Your task to perform on an android device: empty trash in google photos Image 0: 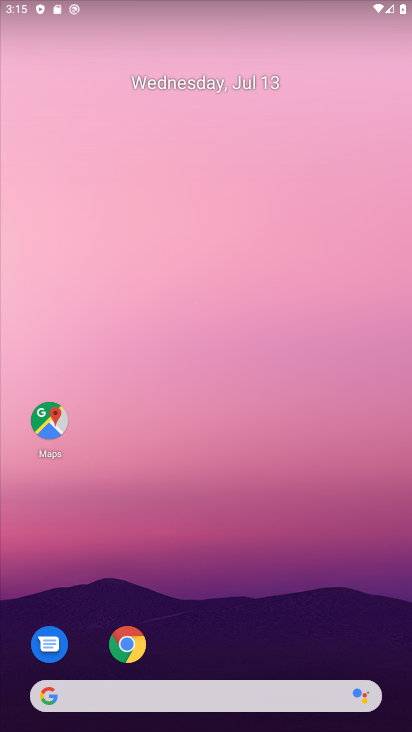
Step 0: drag from (219, 657) to (262, 0)
Your task to perform on an android device: empty trash in google photos Image 1: 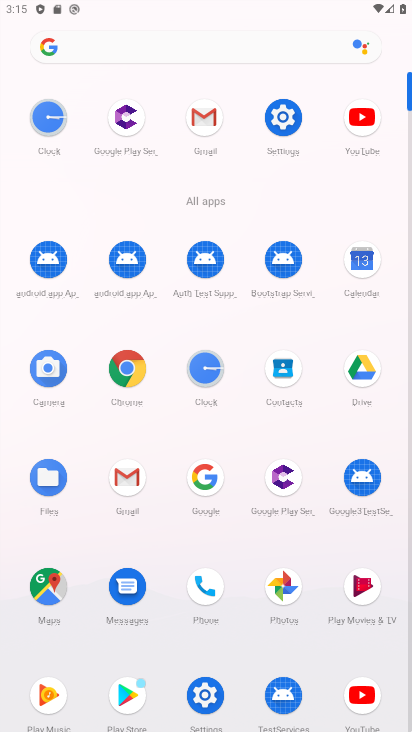
Step 1: click (275, 582)
Your task to perform on an android device: empty trash in google photos Image 2: 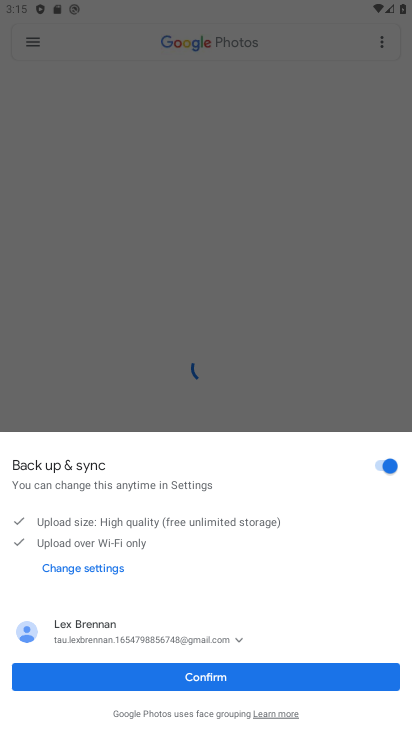
Step 2: click (233, 685)
Your task to perform on an android device: empty trash in google photos Image 3: 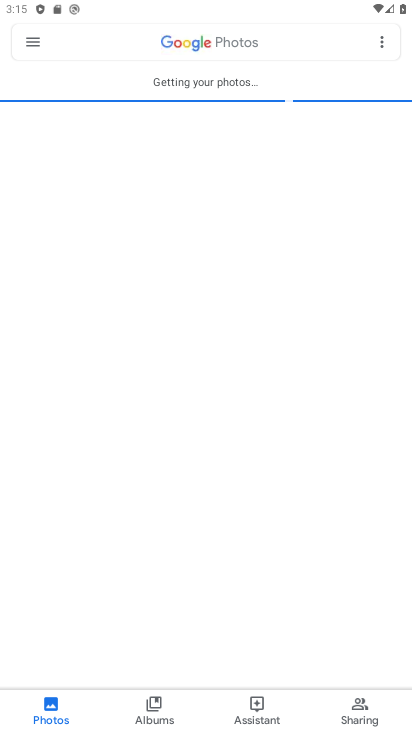
Step 3: click (41, 46)
Your task to perform on an android device: empty trash in google photos Image 4: 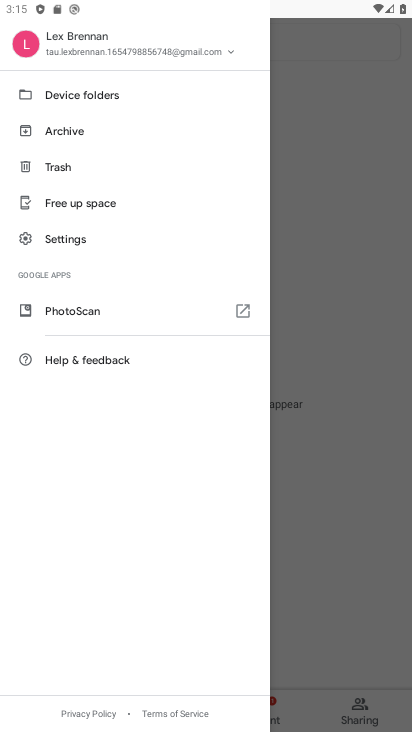
Step 4: click (77, 173)
Your task to perform on an android device: empty trash in google photos Image 5: 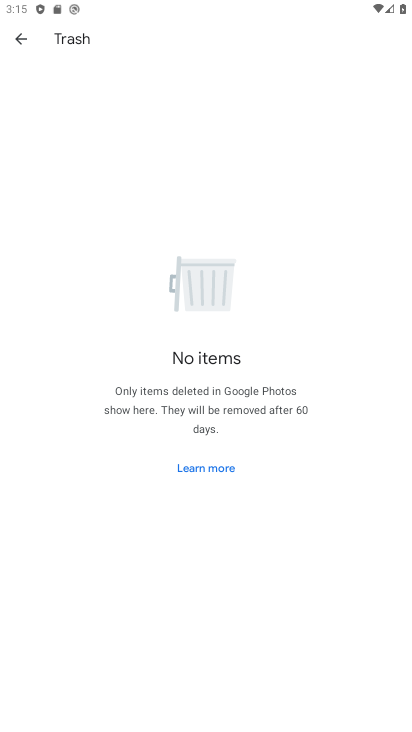
Step 5: task complete